Your task to perform on an android device: Go to eBay Image 0: 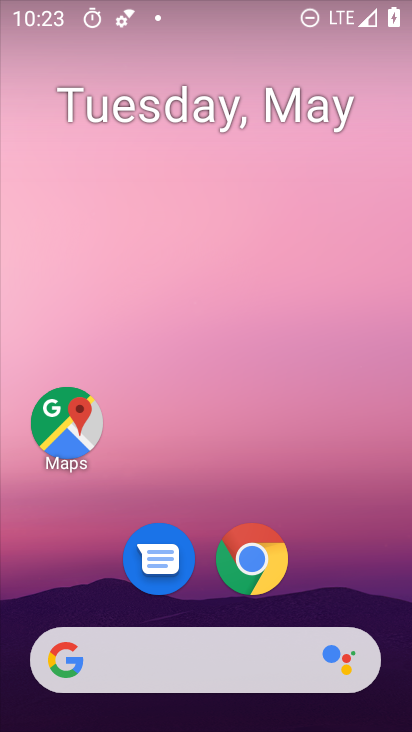
Step 0: drag from (404, 629) to (273, 219)
Your task to perform on an android device: Go to eBay Image 1: 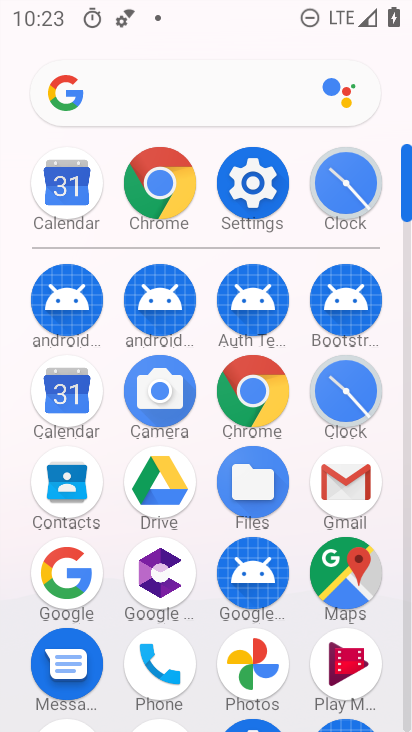
Step 1: click (71, 593)
Your task to perform on an android device: Go to eBay Image 2: 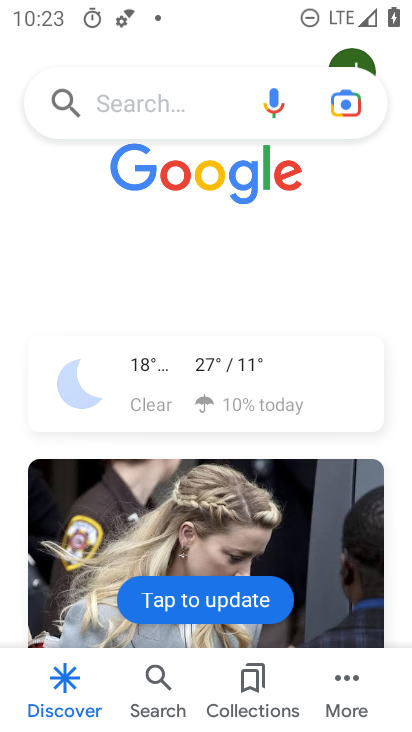
Step 2: click (157, 116)
Your task to perform on an android device: Go to eBay Image 3: 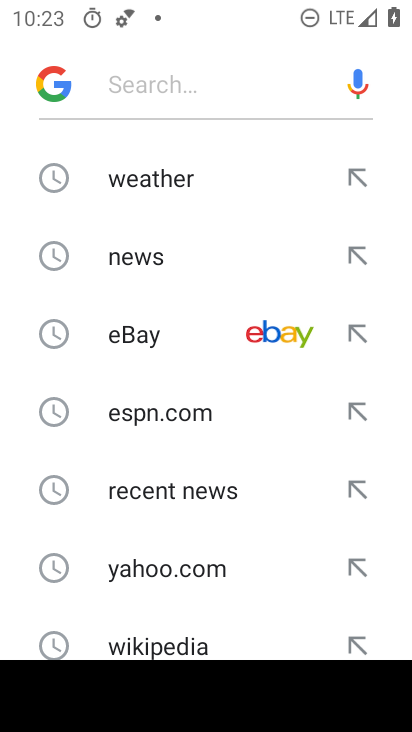
Step 3: click (179, 350)
Your task to perform on an android device: Go to eBay Image 4: 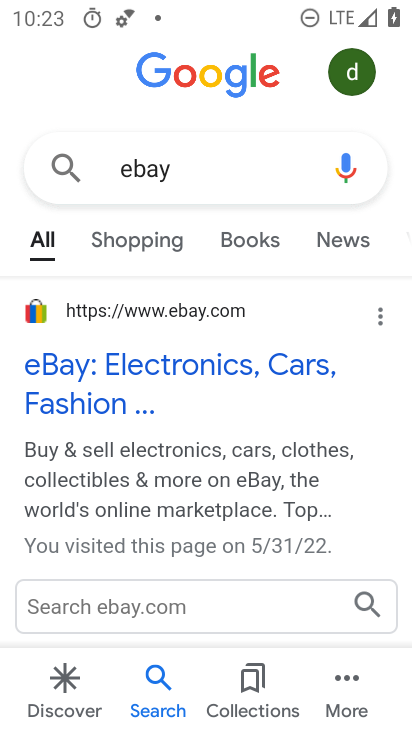
Step 4: task complete